Your task to perform on an android device: Go to sound settings Image 0: 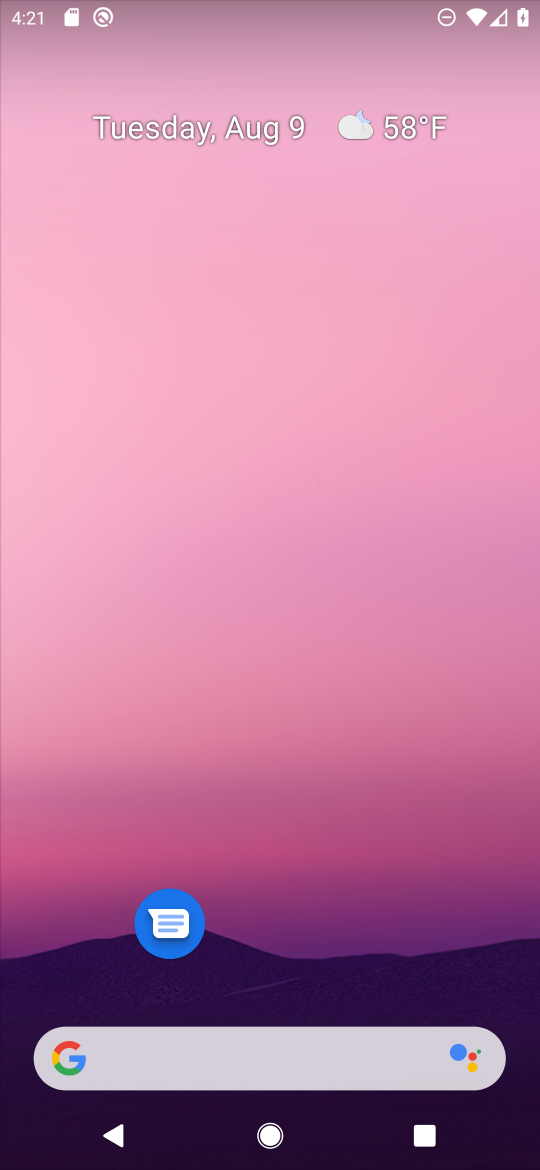
Step 0: drag from (304, 784) to (376, 96)
Your task to perform on an android device: Go to sound settings Image 1: 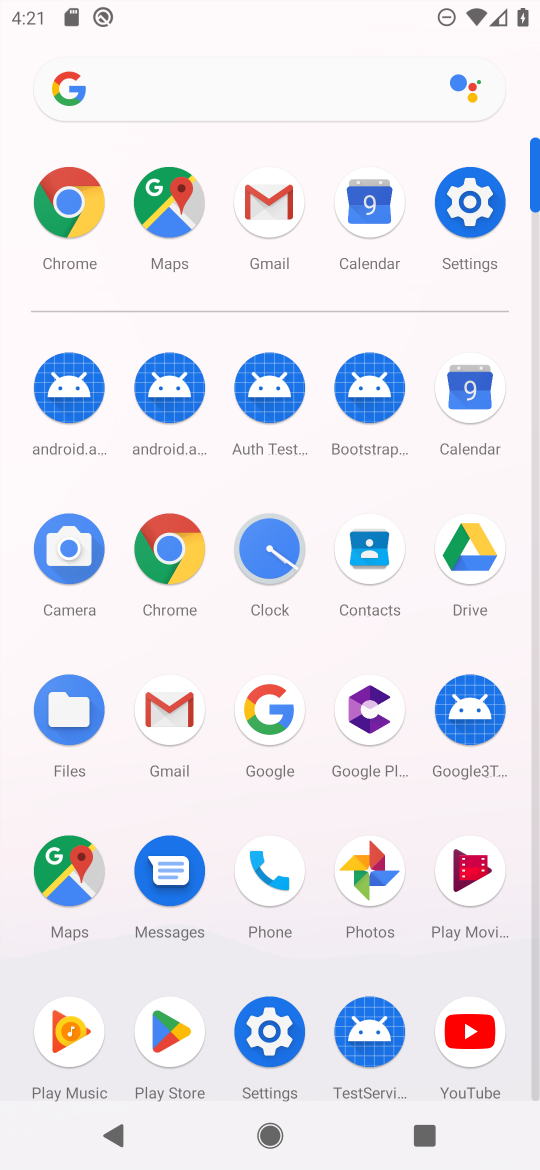
Step 1: click (471, 210)
Your task to perform on an android device: Go to sound settings Image 2: 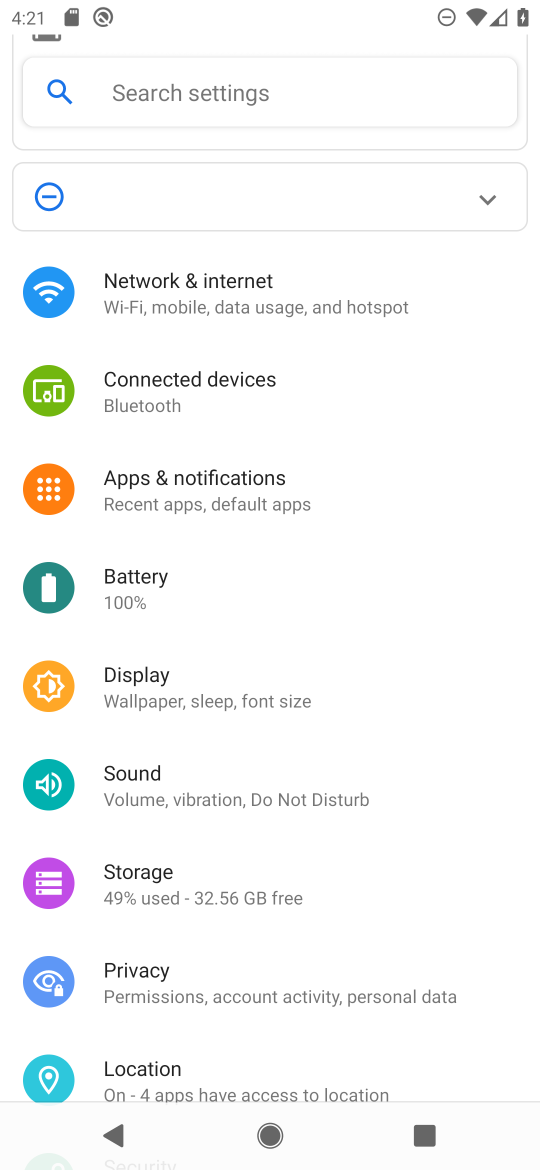
Step 2: click (133, 788)
Your task to perform on an android device: Go to sound settings Image 3: 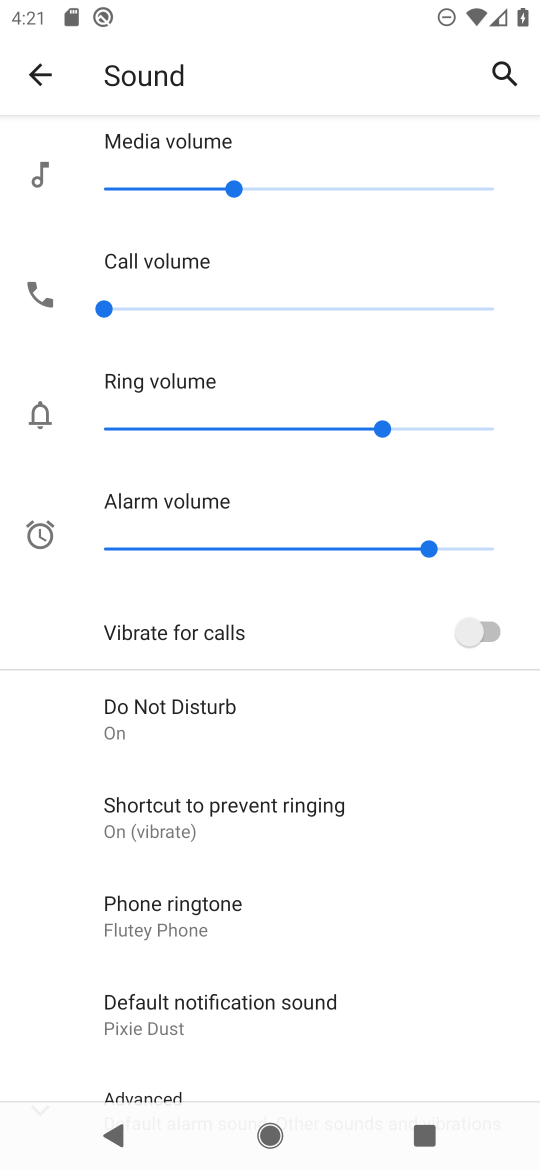
Step 3: task complete